Your task to perform on an android device: Open my contact list Image 0: 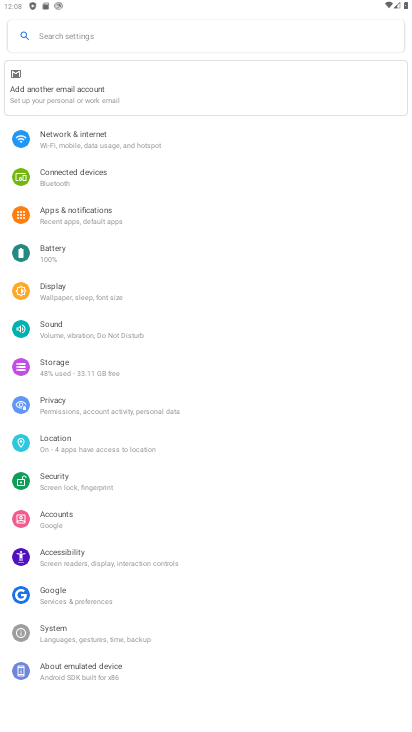
Step 0: press back button
Your task to perform on an android device: Open my contact list Image 1: 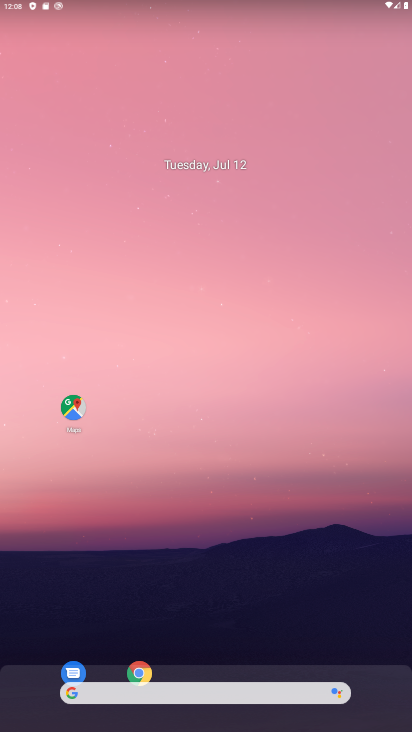
Step 1: drag from (215, 647) to (258, 82)
Your task to perform on an android device: Open my contact list Image 2: 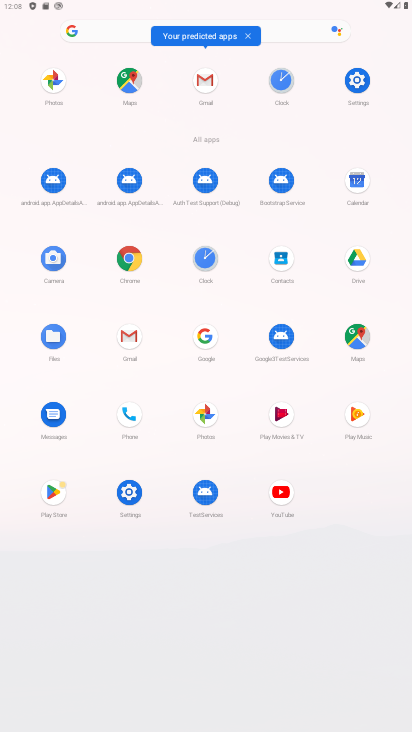
Step 2: click (281, 257)
Your task to perform on an android device: Open my contact list Image 3: 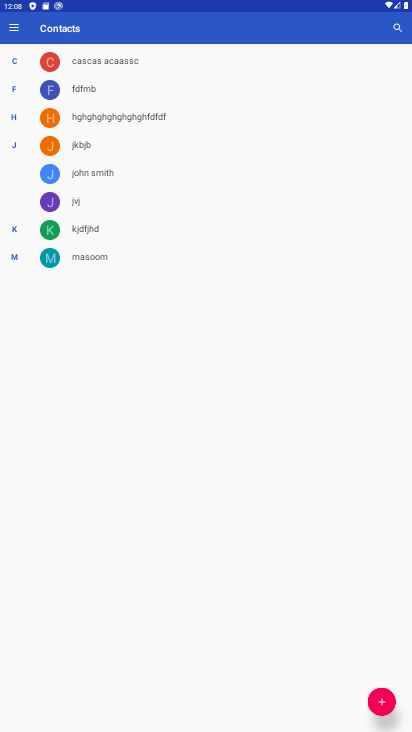
Step 3: task complete